Your task to perform on an android device: Go to Yahoo.com Image 0: 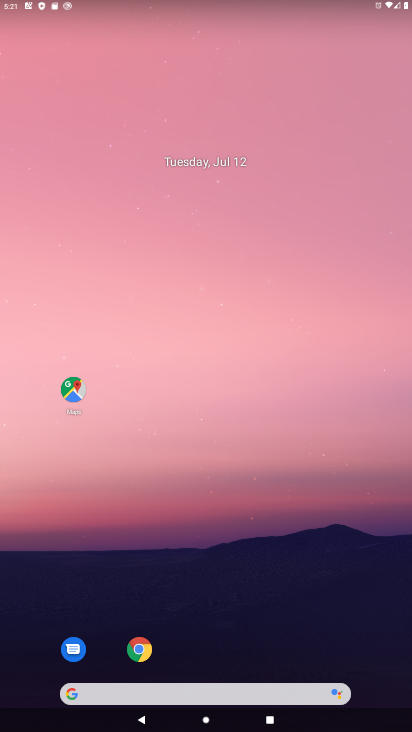
Step 0: click (141, 648)
Your task to perform on an android device: Go to Yahoo.com Image 1: 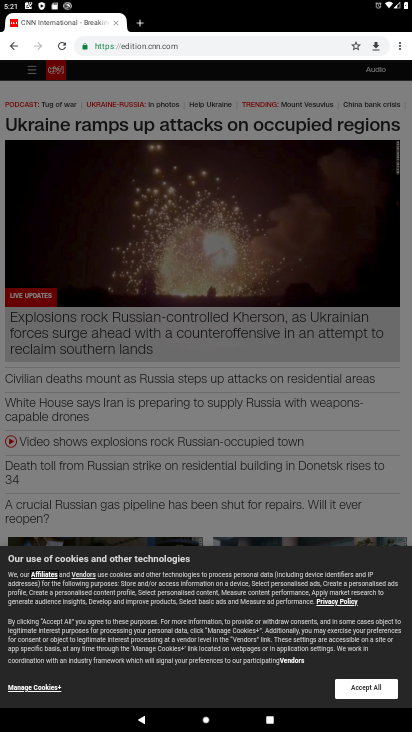
Step 1: click (242, 45)
Your task to perform on an android device: Go to Yahoo.com Image 2: 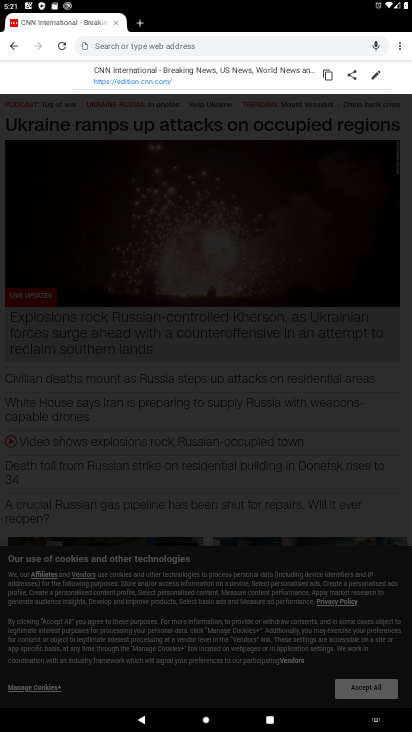
Step 2: type "Yahoo.com"
Your task to perform on an android device: Go to Yahoo.com Image 3: 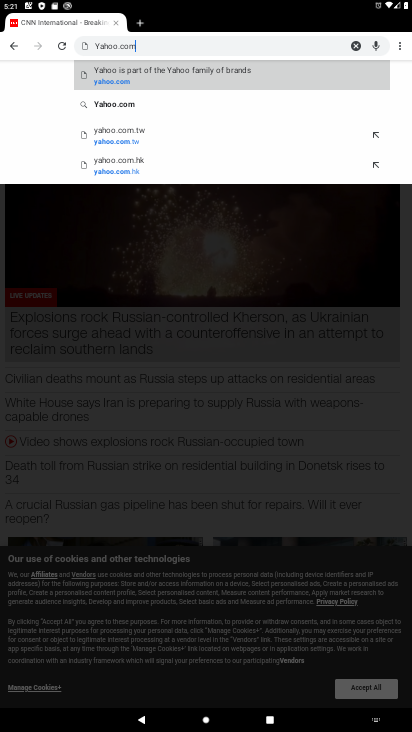
Step 3: click (140, 102)
Your task to perform on an android device: Go to Yahoo.com Image 4: 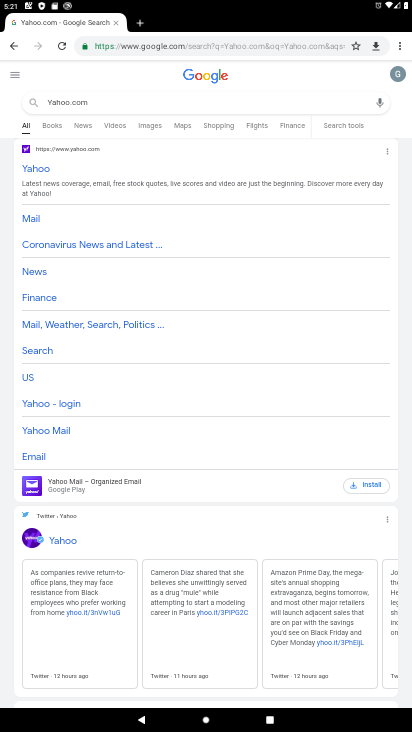
Step 4: click (37, 164)
Your task to perform on an android device: Go to Yahoo.com Image 5: 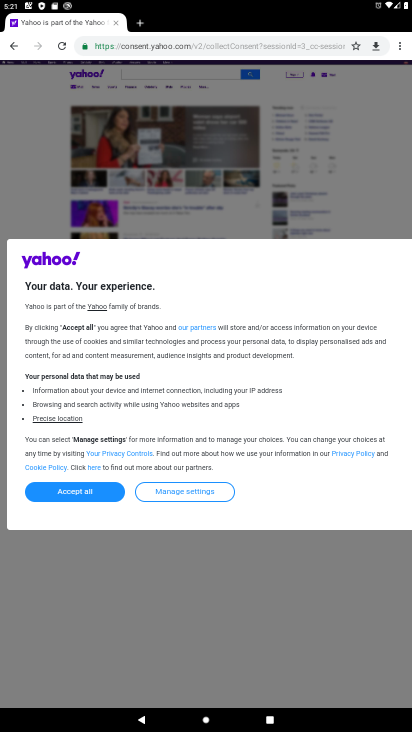
Step 5: click (72, 491)
Your task to perform on an android device: Go to Yahoo.com Image 6: 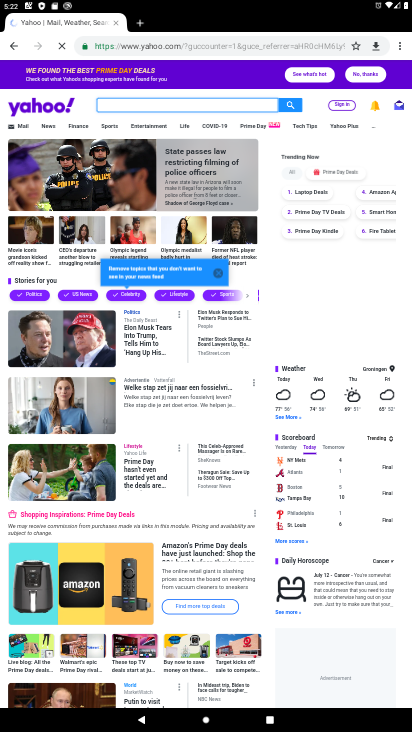
Step 6: task complete